Your task to perform on an android device: Go to display settings Image 0: 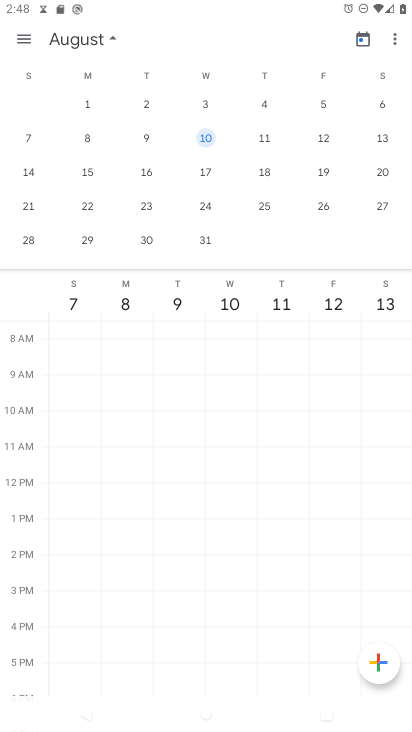
Step 0: press home button
Your task to perform on an android device: Go to display settings Image 1: 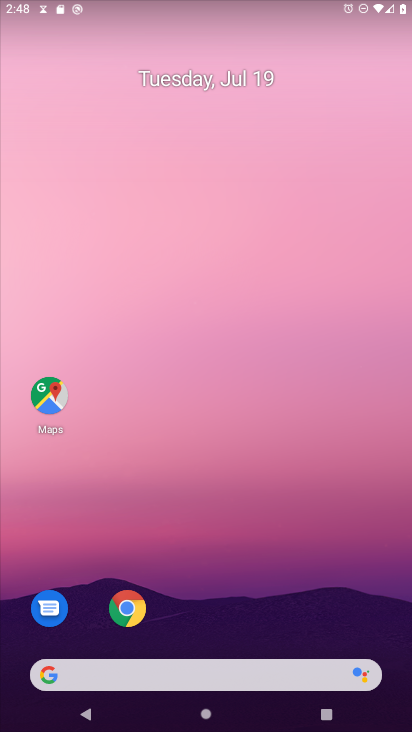
Step 1: drag from (317, 676) to (311, 216)
Your task to perform on an android device: Go to display settings Image 2: 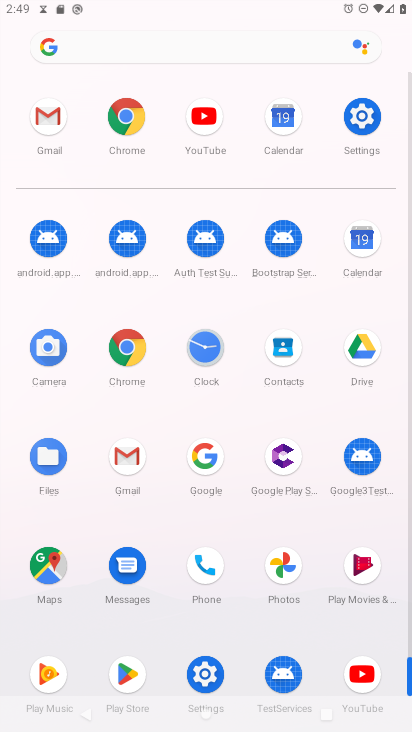
Step 2: click (378, 110)
Your task to perform on an android device: Go to display settings Image 3: 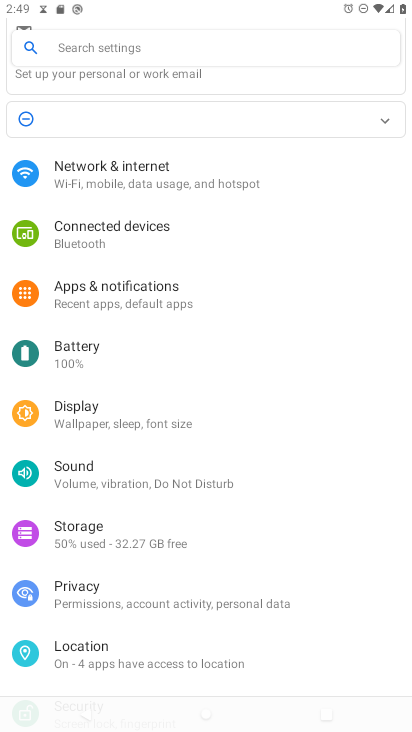
Step 3: click (110, 409)
Your task to perform on an android device: Go to display settings Image 4: 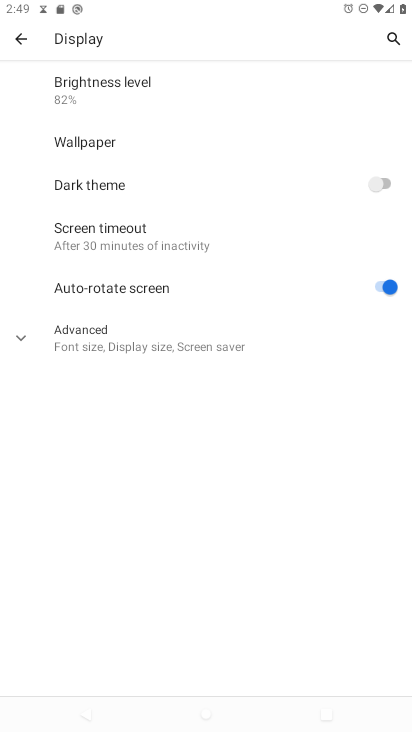
Step 4: task complete